Your task to perform on an android device: Go to Yahoo.com Image 0: 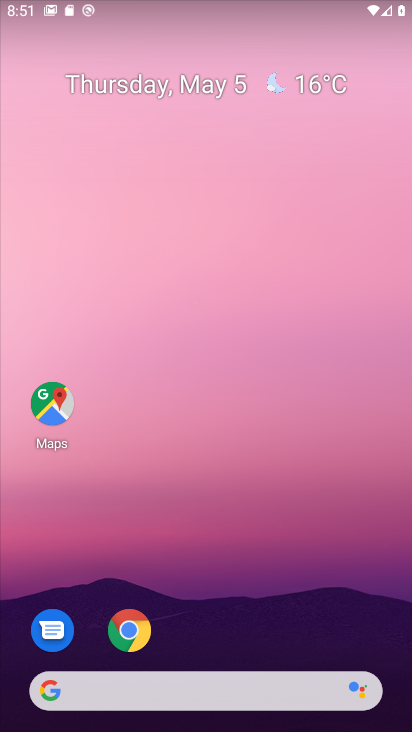
Step 0: drag from (246, 641) to (277, 3)
Your task to perform on an android device: Go to Yahoo.com Image 1: 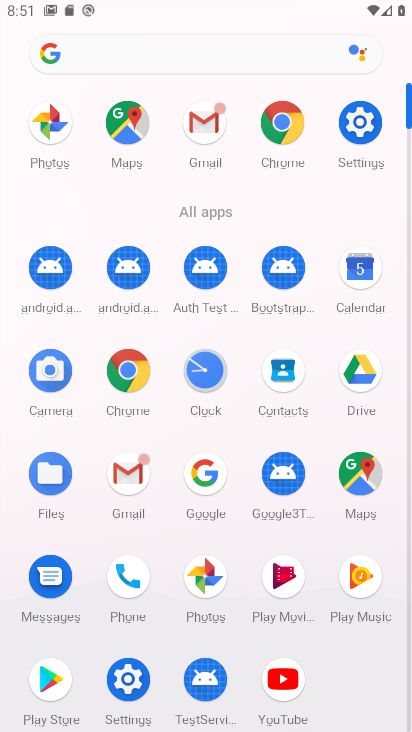
Step 1: click (272, 126)
Your task to perform on an android device: Go to Yahoo.com Image 2: 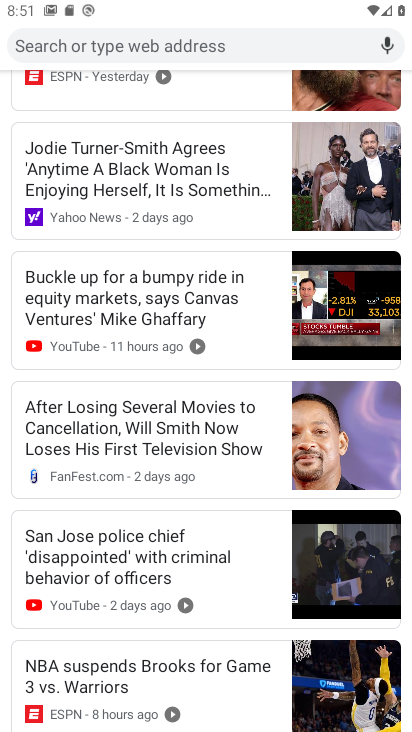
Step 2: drag from (178, 231) to (201, 587)
Your task to perform on an android device: Go to Yahoo.com Image 3: 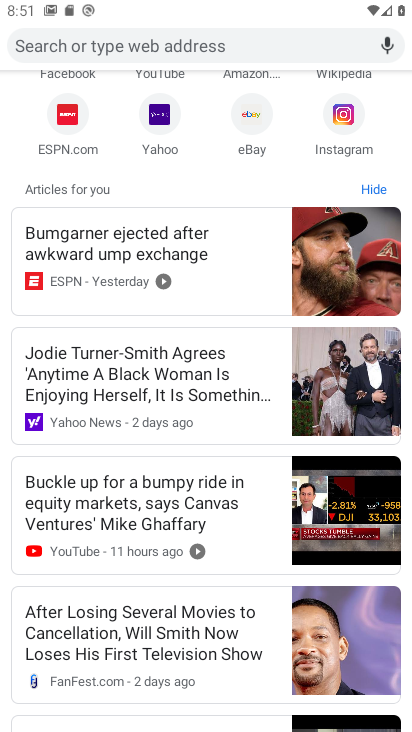
Step 3: drag from (237, 280) to (196, 673)
Your task to perform on an android device: Go to Yahoo.com Image 4: 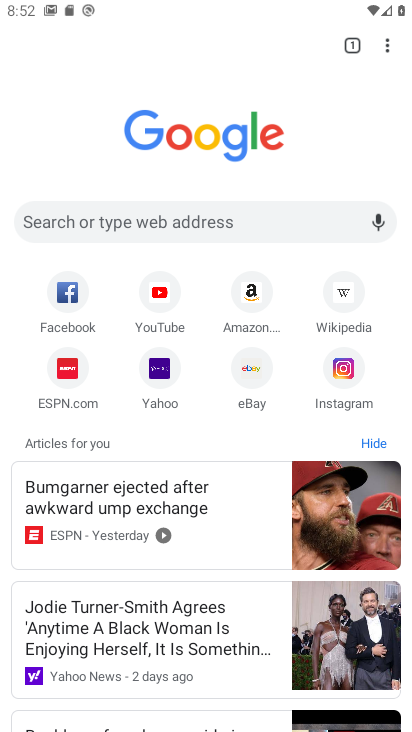
Step 4: click (158, 372)
Your task to perform on an android device: Go to Yahoo.com Image 5: 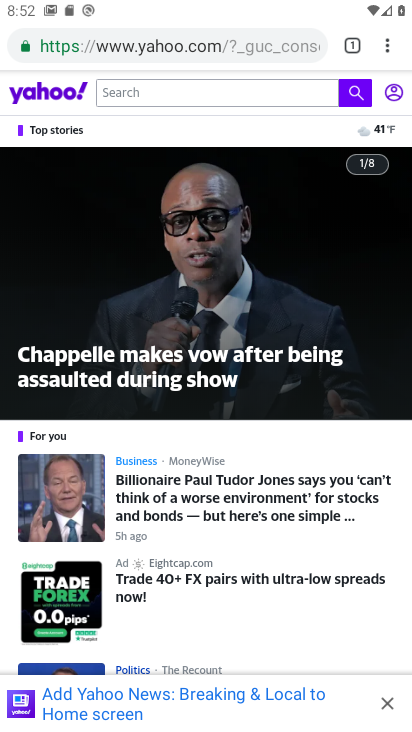
Step 5: task complete